Your task to perform on an android device: check data usage Image 0: 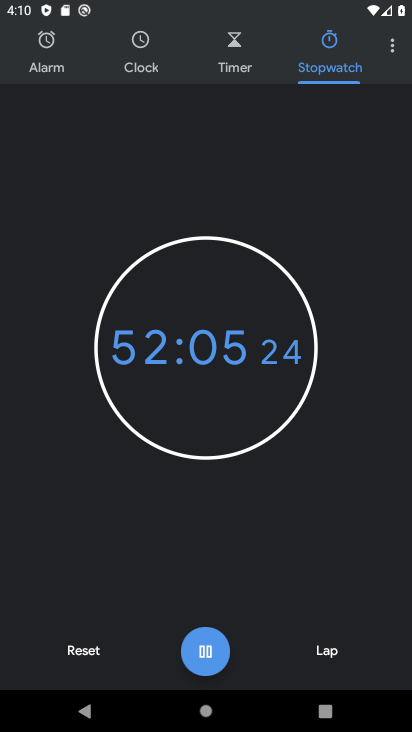
Step 0: drag from (291, 12) to (231, 594)
Your task to perform on an android device: check data usage Image 1: 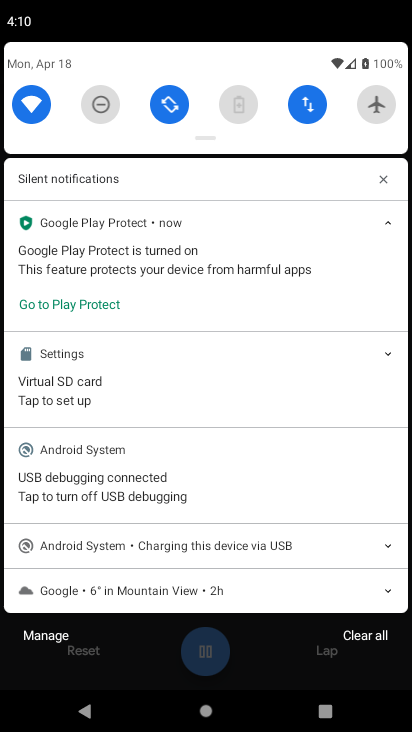
Step 1: drag from (190, 59) to (263, 586)
Your task to perform on an android device: check data usage Image 2: 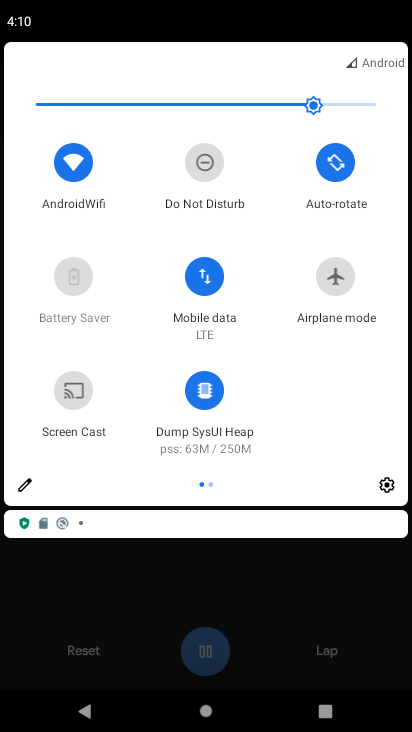
Step 2: click (384, 490)
Your task to perform on an android device: check data usage Image 3: 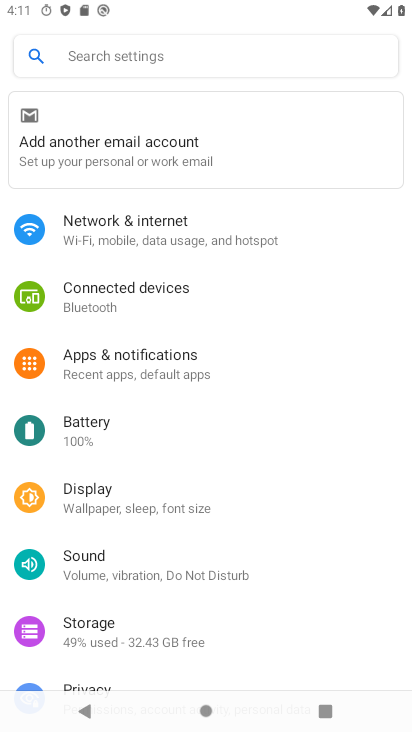
Step 3: click (78, 236)
Your task to perform on an android device: check data usage Image 4: 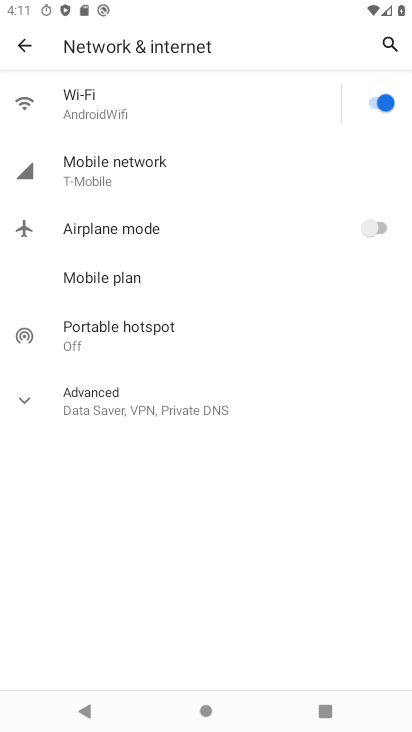
Step 4: click (108, 186)
Your task to perform on an android device: check data usage Image 5: 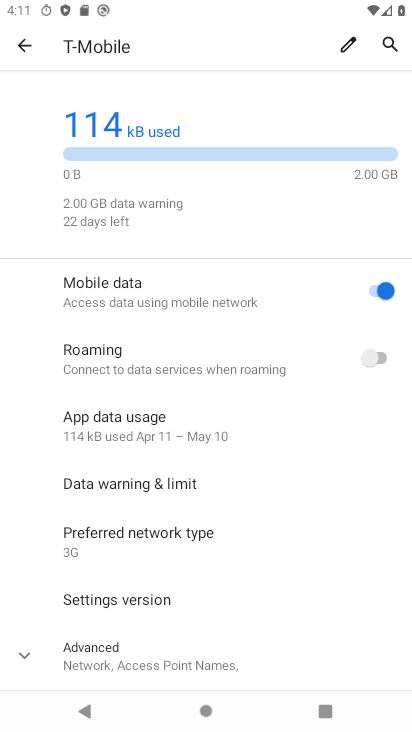
Step 5: task complete